Your task to perform on an android device: delete browsing data in the chrome app Image 0: 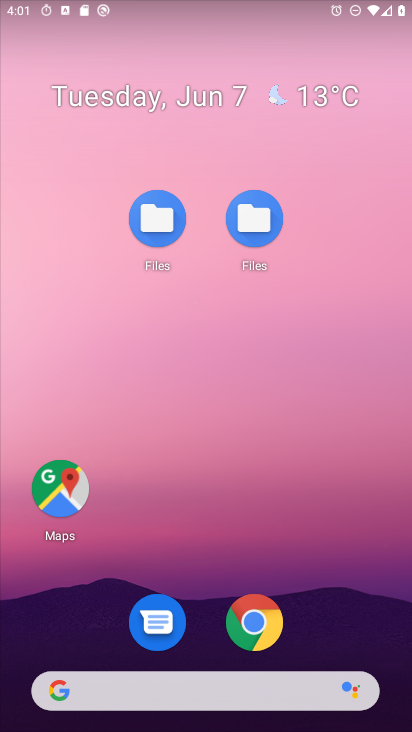
Step 0: click (258, 626)
Your task to perform on an android device: delete browsing data in the chrome app Image 1: 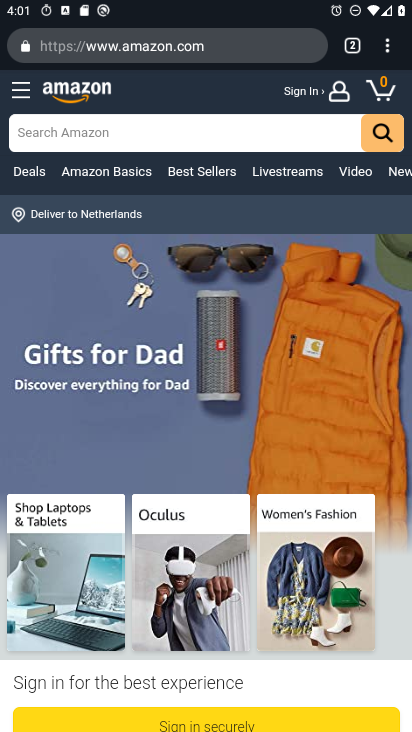
Step 1: click (387, 40)
Your task to perform on an android device: delete browsing data in the chrome app Image 2: 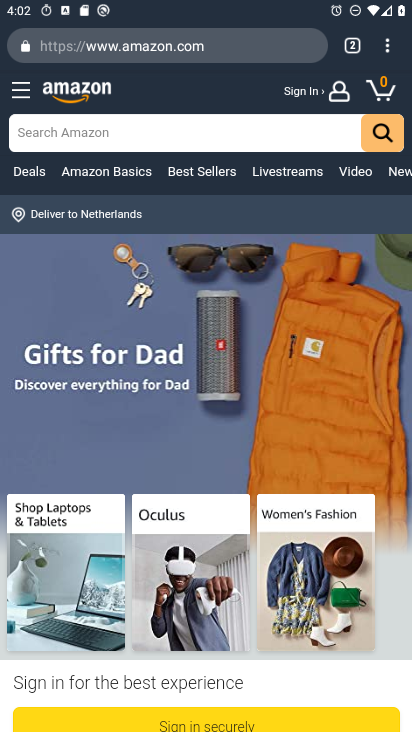
Step 2: click (380, 43)
Your task to perform on an android device: delete browsing data in the chrome app Image 3: 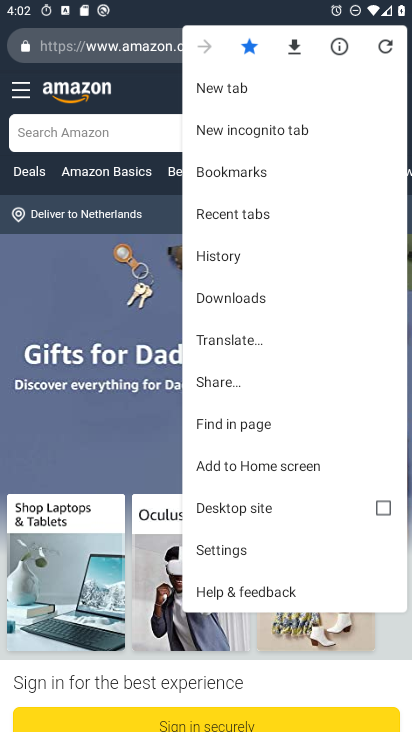
Step 3: click (229, 540)
Your task to perform on an android device: delete browsing data in the chrome app Image 4: 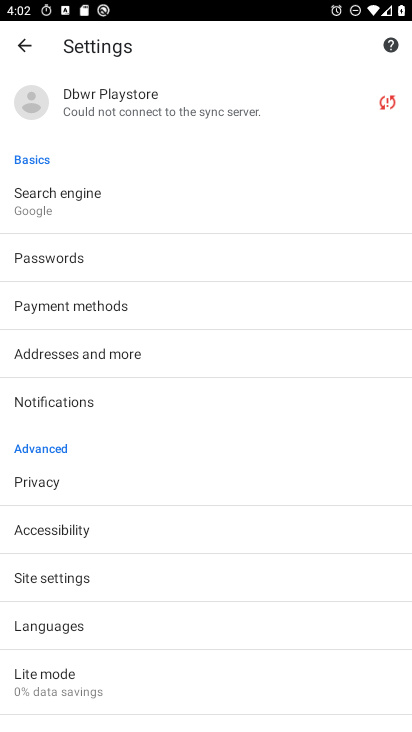
Step 4: click (183, 479)
Your task to perform on an android device: delete browsing data in the chrome app Image 5: 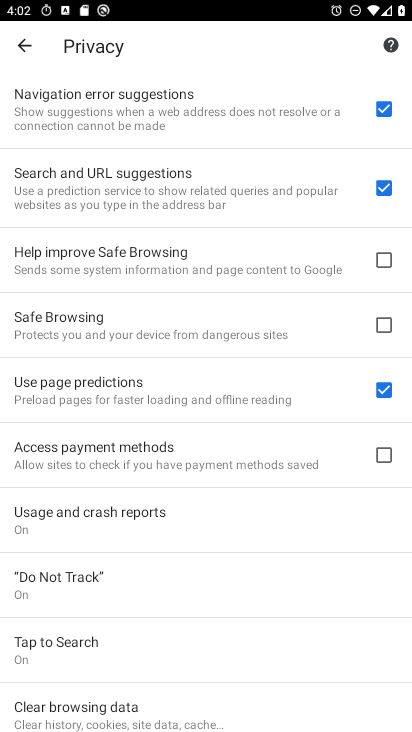
Step 5: click (201, 702)
Your task to perform on an android device: delete browsing data in the chrome app Image 6: 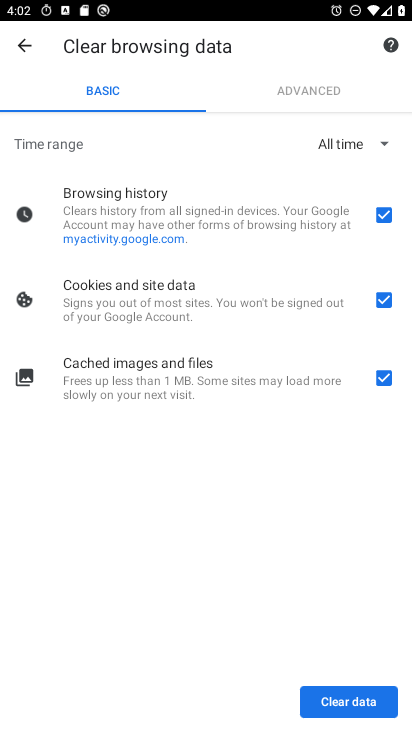
Step 6: click (359, 695)
Your task to perform on an android device: delete browsing data in the chrome app Image 7: 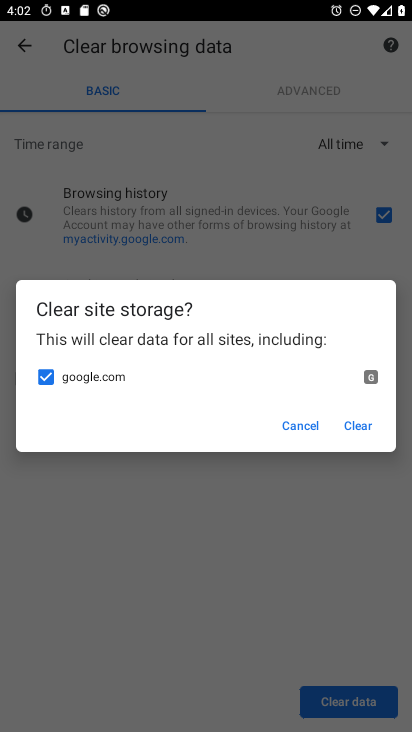
Step 7: click (362, 420)
Your task to perform on an android device: delete browsing data in the chrome app Image 8: 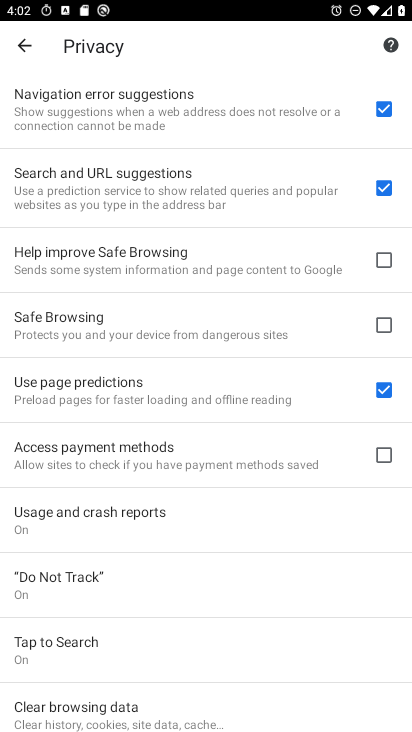
Step 8: task complete